Your task to perform on an android device: search for starred emails in the gmail app Image 0: 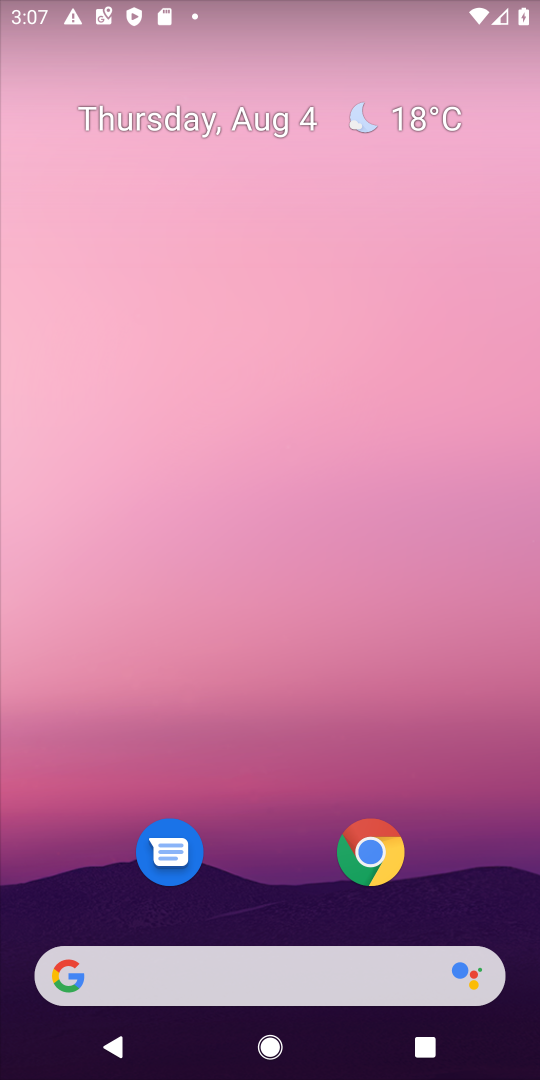
Step 0: drag from (260, 697) to (272, 74)
Your task to perform on an android device: search for starred emails in the gmail app Image 1: 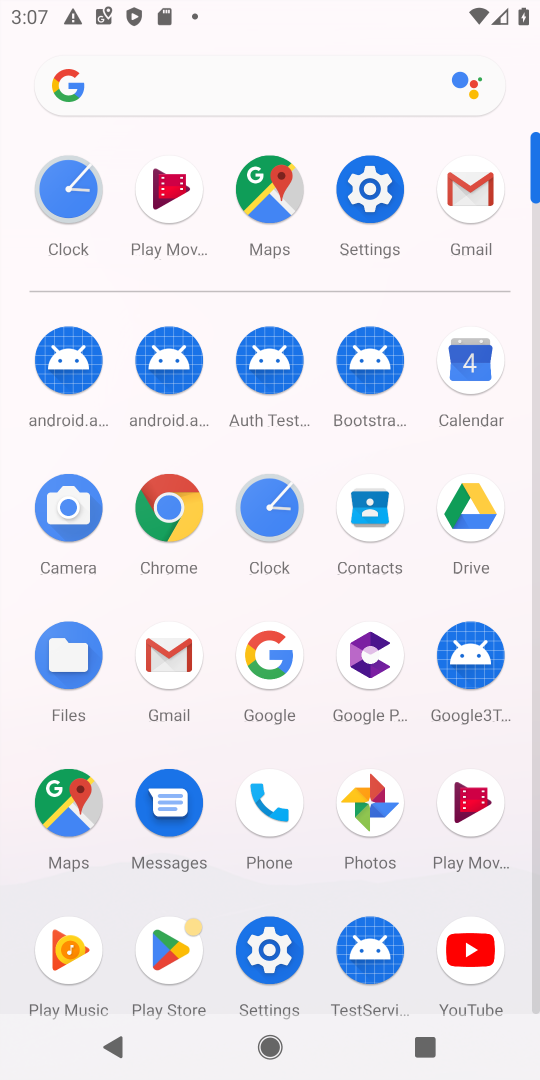
Step 1: click (472, 189)
Your task to perform on an android device: search for starred emails in the gmail app Image 2: 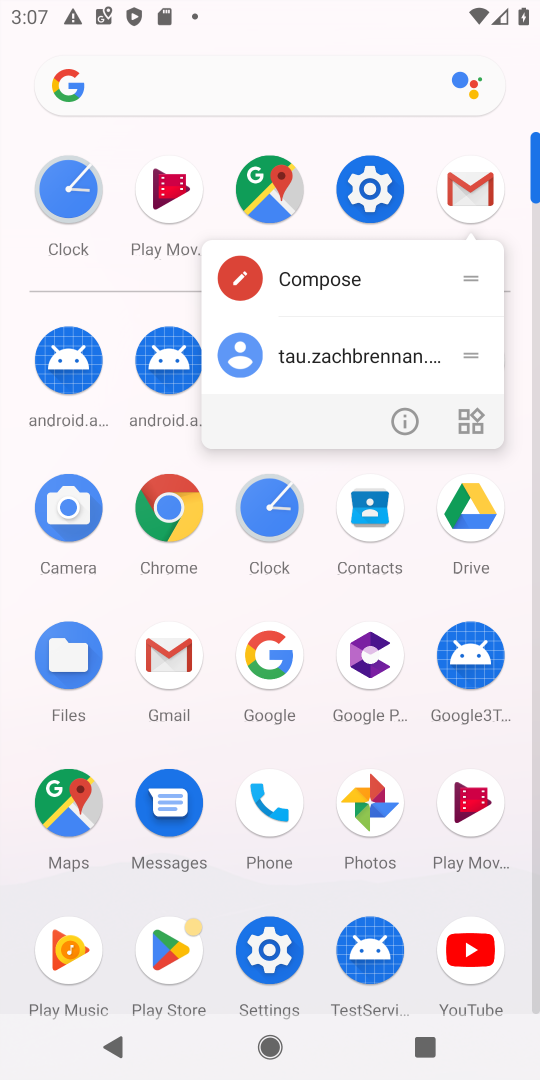
Step 2: click (489, 179)
Your task to perform on an android device: search for starred emails in the gmail app Image 3: 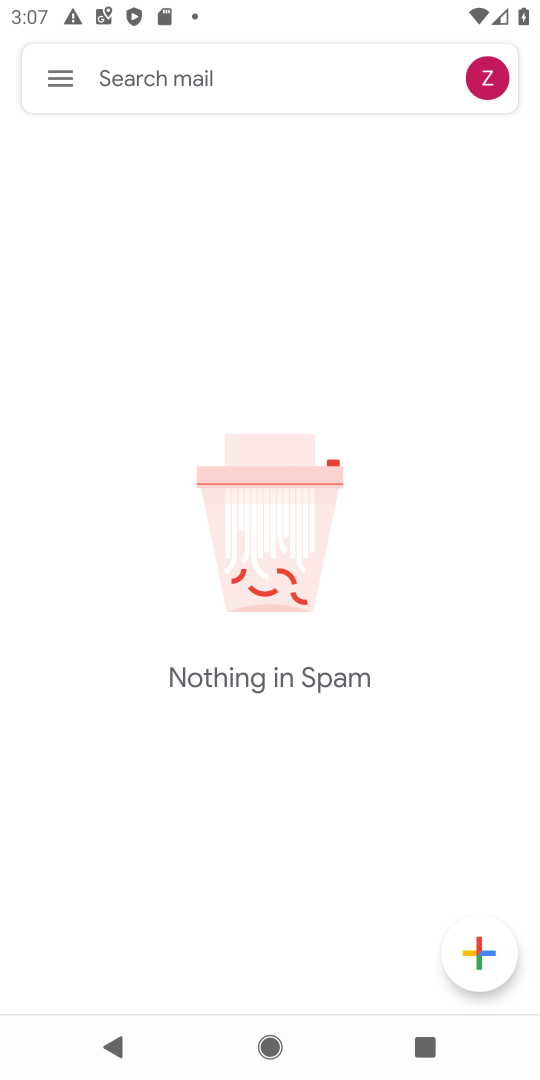
Step 3: click (64, 78)
Your task to perform on an android device: search for starred emails in the gmail app Image 4: 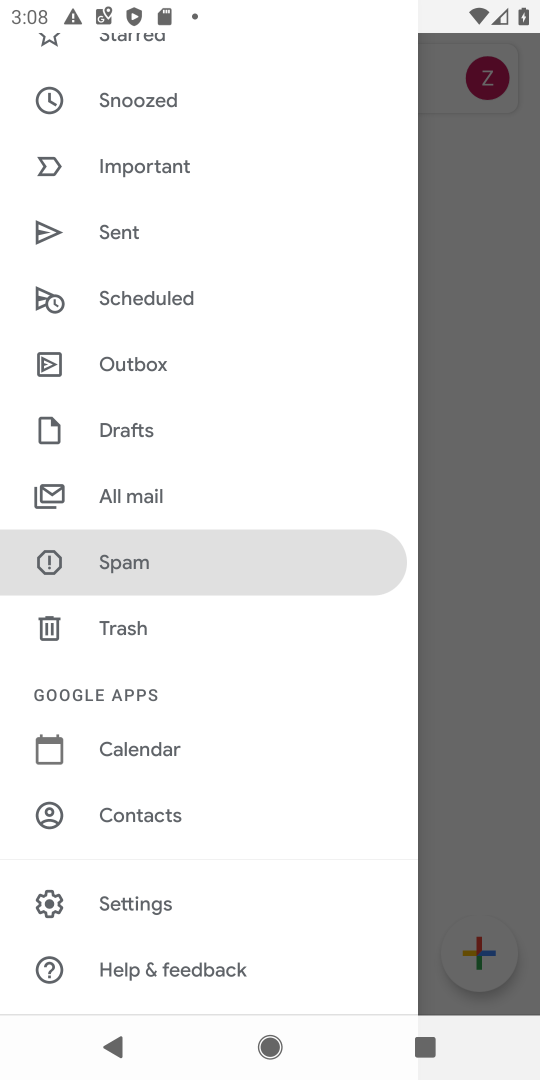
Step 4: drag from (233, 313) to (245, 681)
Your task to perform on an android device: search for starred emails in the gmail app Image 5: 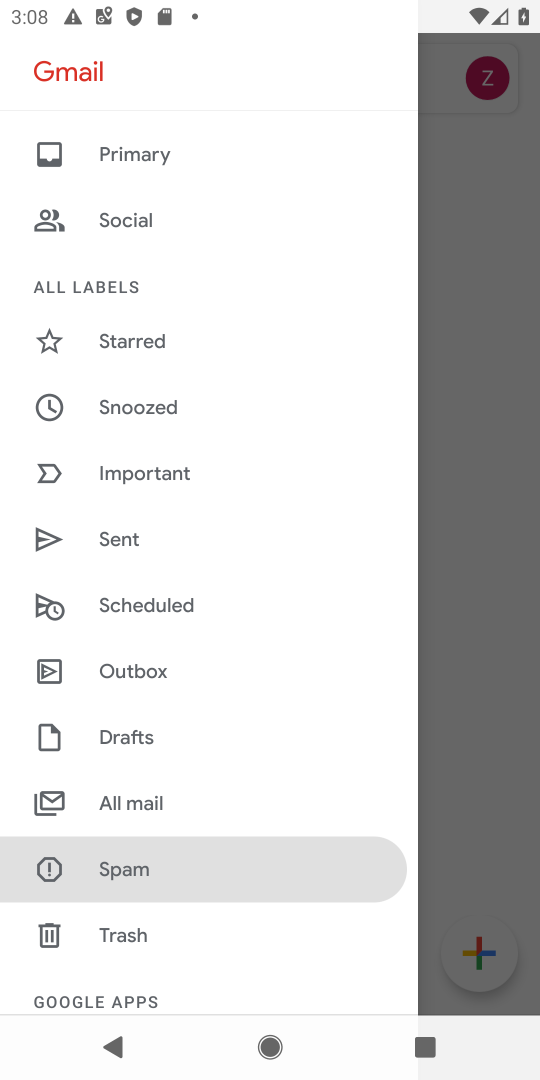
Step 5: click (129, 333)
Your task to perform on an android device: search for starred emails in the gmail app Image 6: 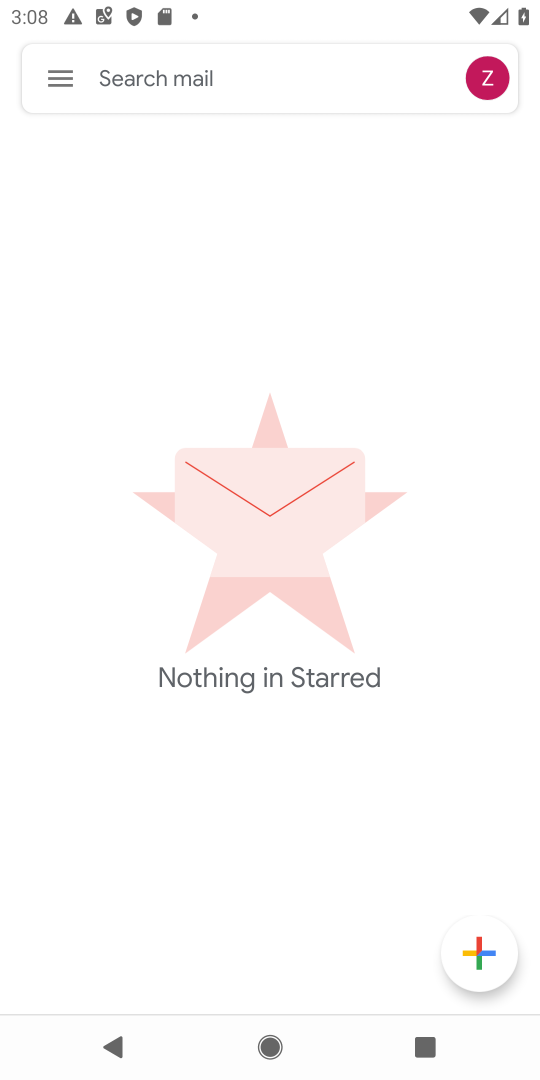
Step 6: task complete